Your task to perform on an android device: What's on my calendar tomorrow? Image 0: 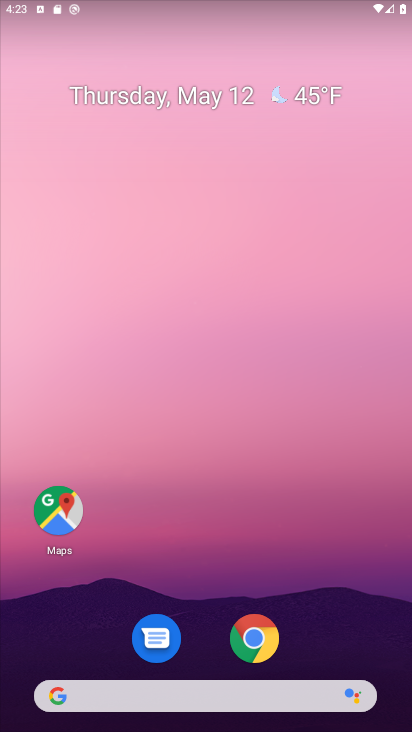
Step 0: click (186, 98)
Your task to perform on an android device: What's on my calendar tomorrow? Image 1: 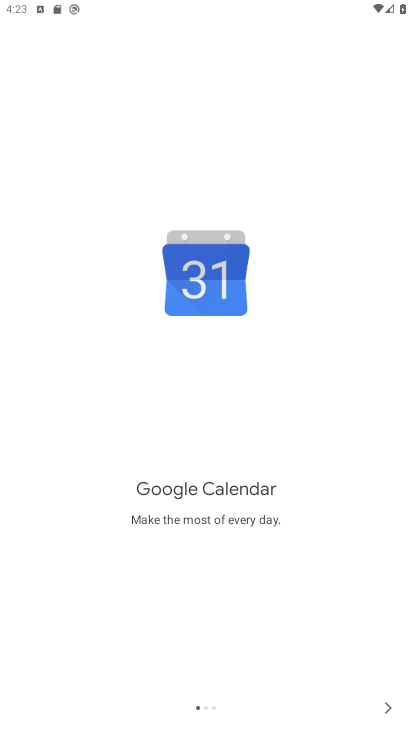
Step 1: click (385, 703)
Your task to perform on an android device: What's on my calendar tomorrow? Image 2: 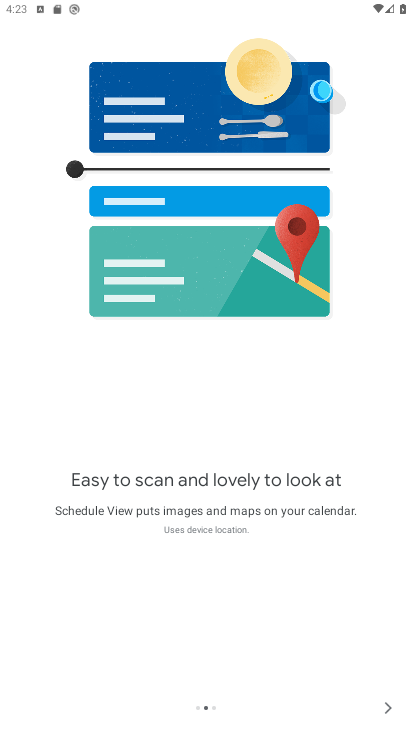
Step 2: click (383, 703)
Your task to perform on an android device: What's on my calendar tomorrow? Image 3: 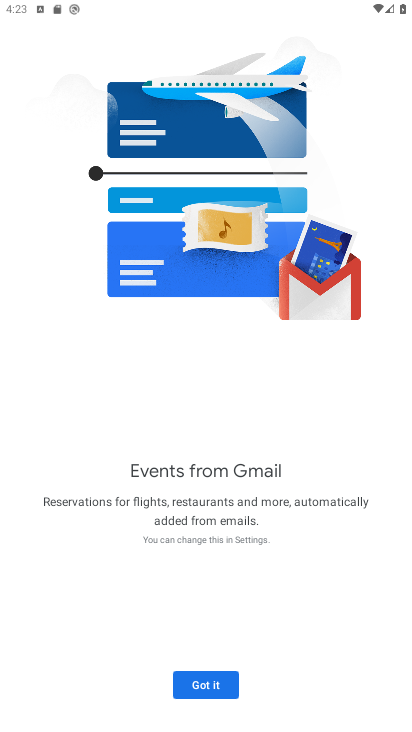
Step 3: click (220, 685)
Your task to perform on an android device: What's on my calendar tomorrow? Image 4: 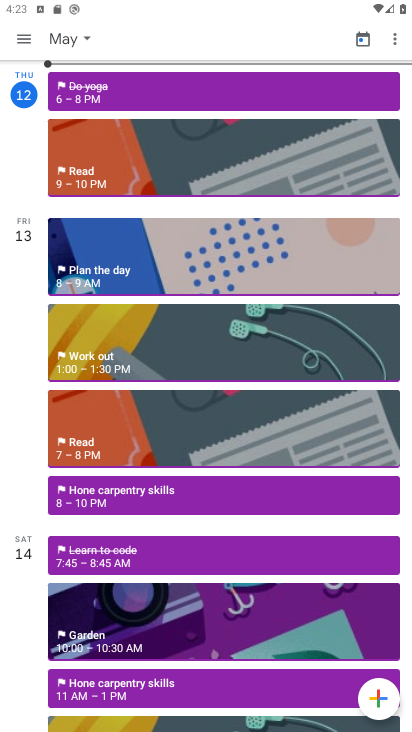
Step 4: task complete